Your task to perform on an android device: When is my next appointment? Image 0: 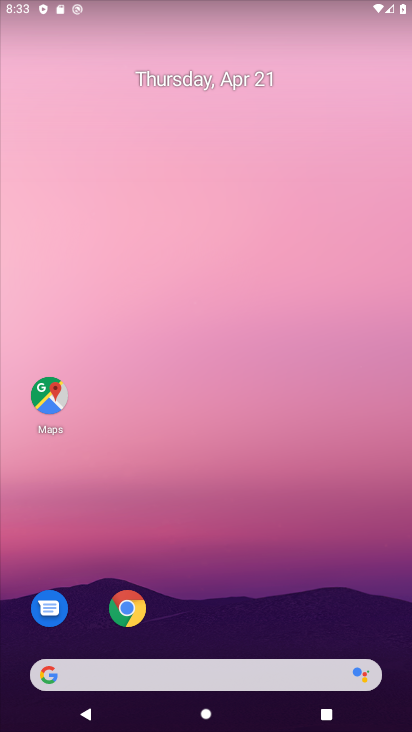
Step 0: drag from (300, 619) to (270, 261)
Your task to perform on an android device: When is my next appointment? Image 1: 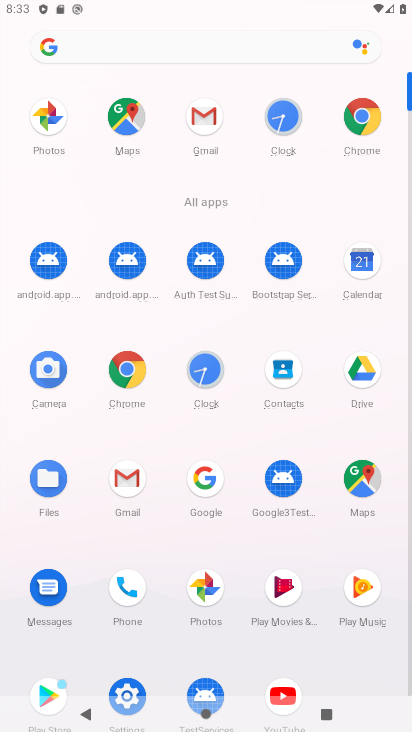
Step 1: click (365, 257)
Your task to perform on an android device: When is my next appointment? Image 2: 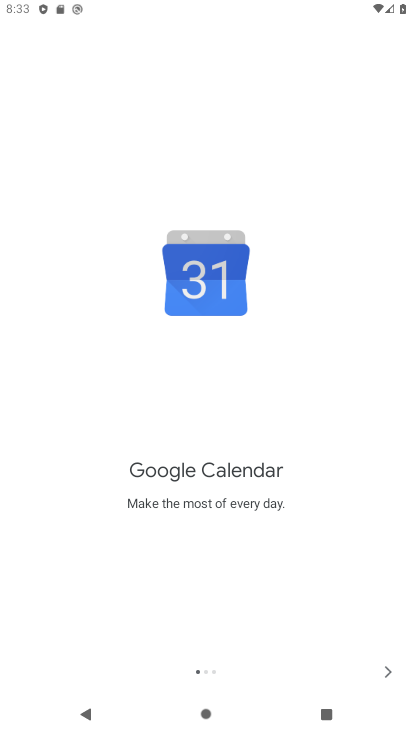
Step 2: click (377, 669)
Your task to perform on an android device: When is my next appointment? Image 3: 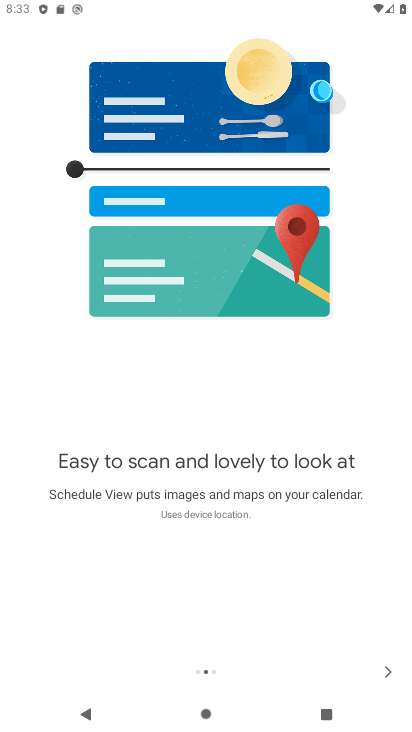
Step 3: click (377, 669)
Your task to perform on an android device: When is my next appointment? Image 4: 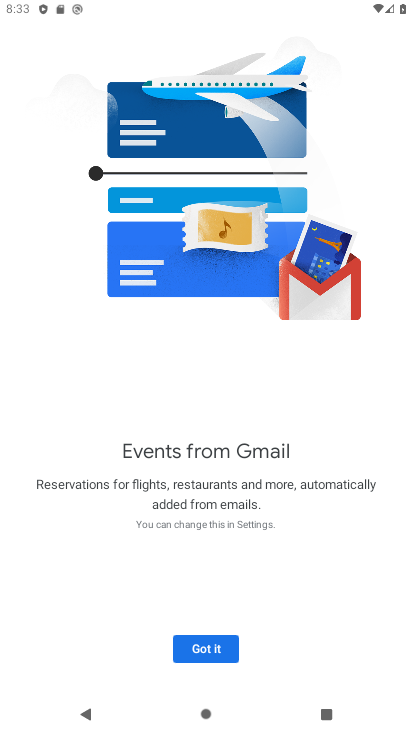
Step 4: click (203, 649)
Your task to perform on an android device: When is my next appointment? Image 5: 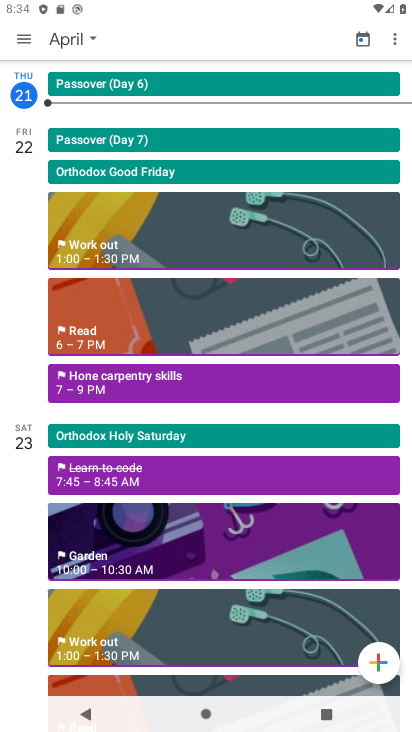
Step 5: click (93, 31)
Your task to perform on an android device: When is my next appointment? Image 6: 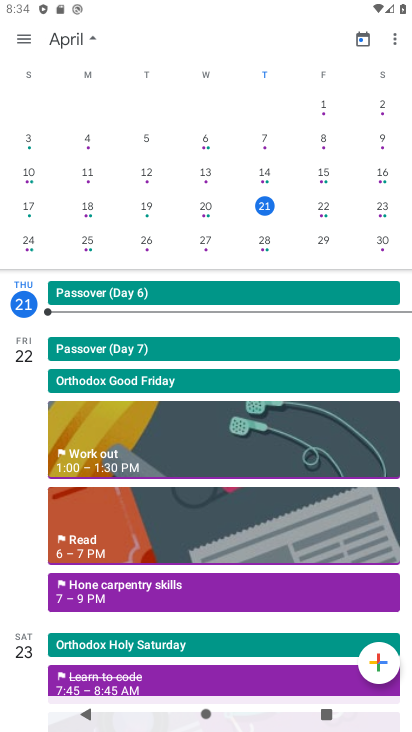
Step 6: click (307, 204)
Your task to perform on an android device: When is my next appointment? Image 7: 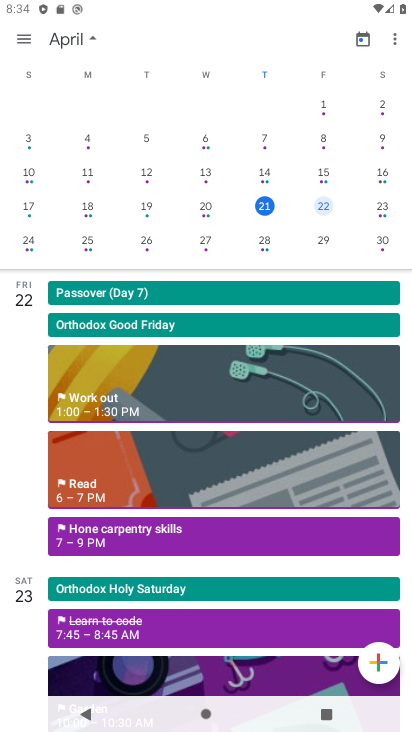
Step 7: click (92, 36)
Your task to perform on an android device: When is my next appointment? Image 8: 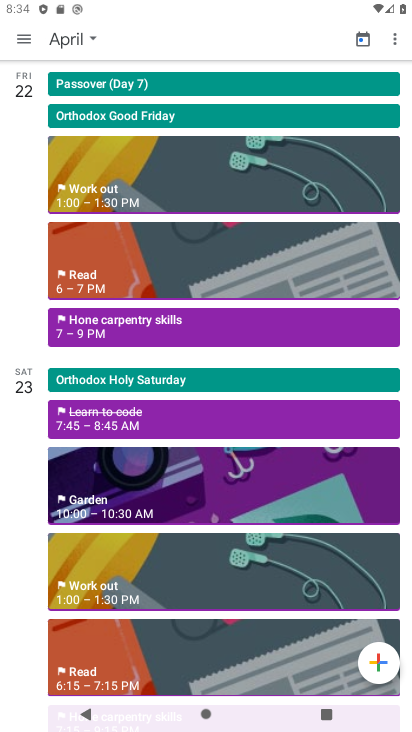
Step 8: task complete